Your task to perform on an android device: turn off picture-in-picture Image 0: 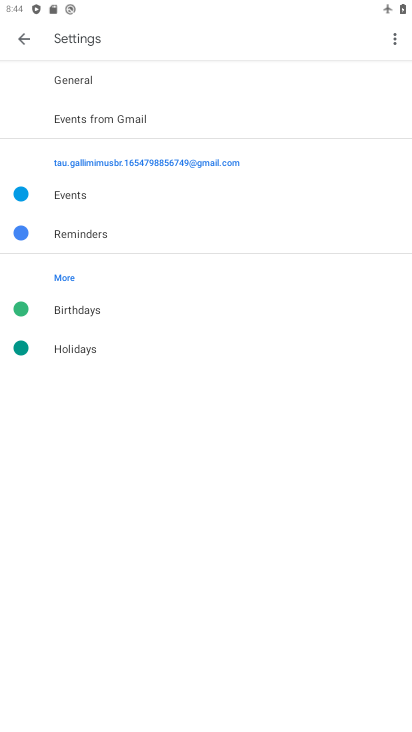
Step 0: press home button
Your task to perform on an android device: turn off picture-in-picture Image 1: 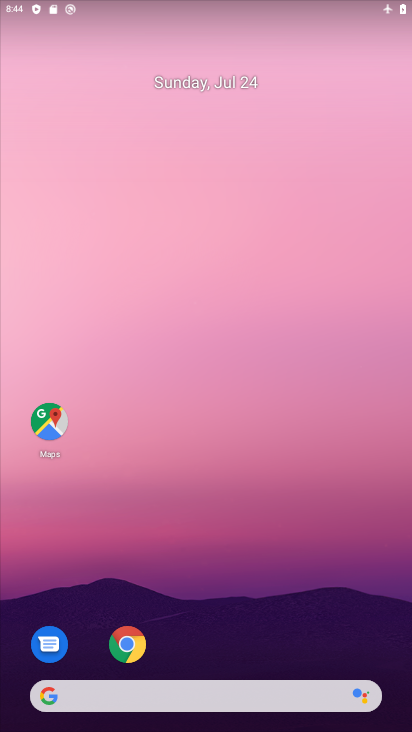
Step 1: click (134, 636)
Your task to perform on an android device: turn off picture-in-picture Image 2: 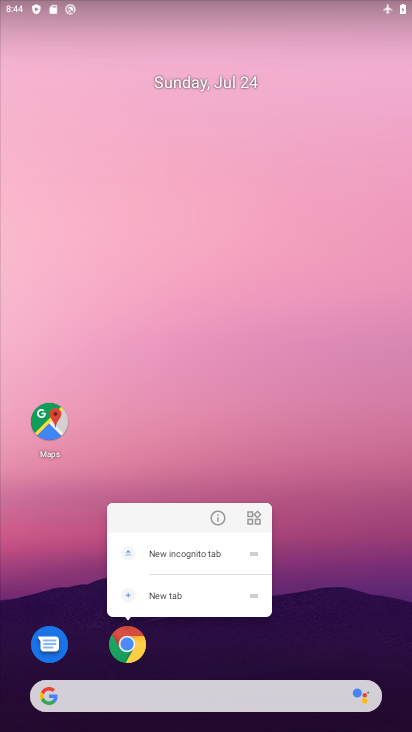
Step 2: click (213, 507)
Your task to perform on an android device: turn off picture-in-picture Image 3: 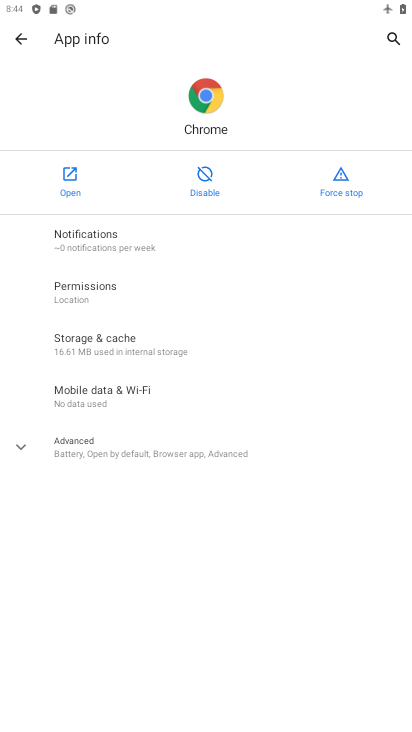
Step 3: click (102, 458)
Your task to perform on an android device: turn off picture-in-picture Image 4: 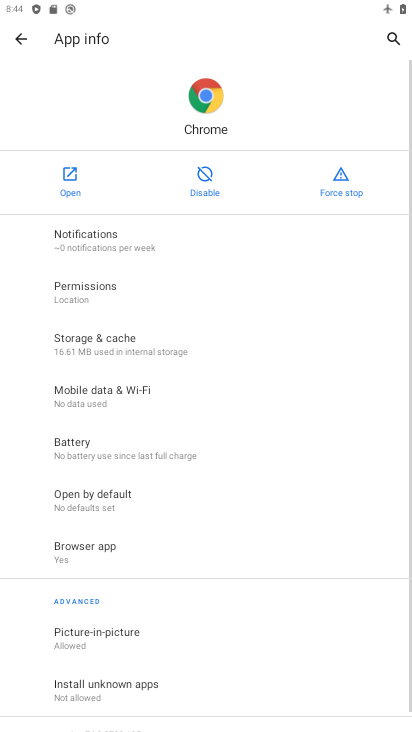
Step 4: drag from (191, 564) to (201, 327)
Your task to perform on an android device: turn off picture-in-picture Image 5: 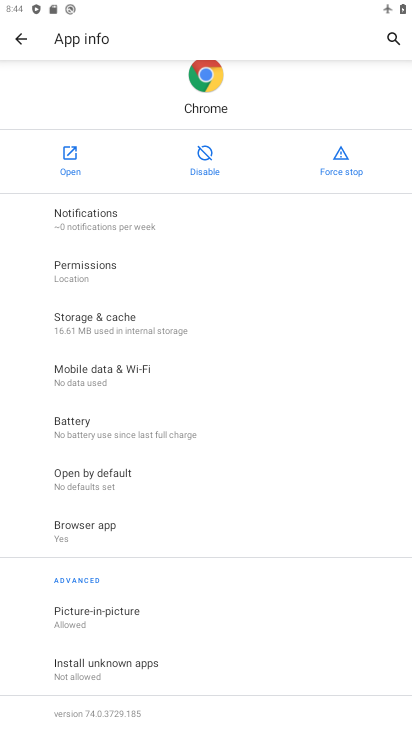
Step 5: click (103, 617)
Your task to perform on an android device: turn off picture-in-picture Image 6: 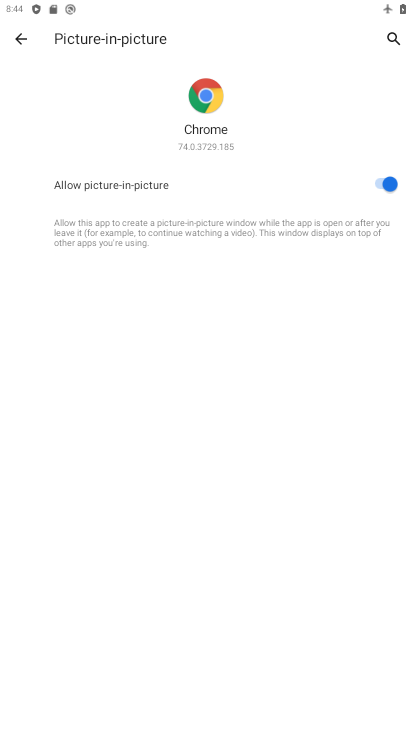
Step 6: click (285, 168)
Your task to perform on an android device: turn off picture-in-picture Image 7: 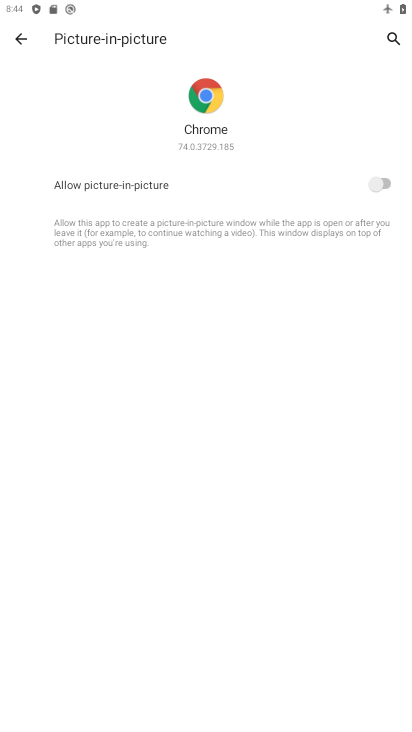
Step 7: task complete